Your task to perform on an android device: refresh tabs in the chrome app Image 0: 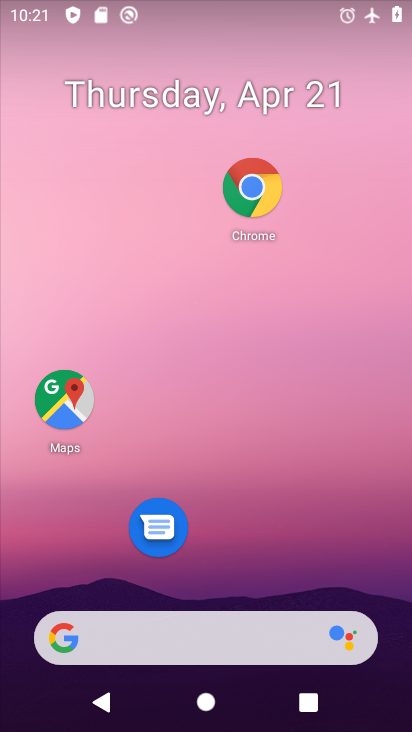
Step 0: click (263, 208)
Your task to perform on an android device: refresh tabs in the chrome app Image 1: 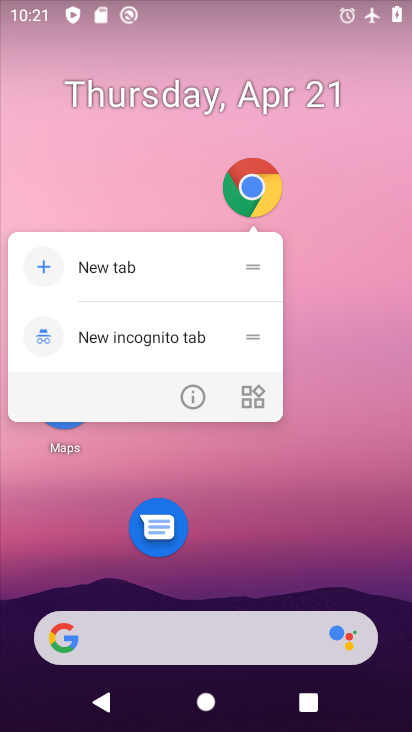
Step 1: click (263, 208)
Your task to perform on an android device: refresh tabs in the chrome app Image 2: 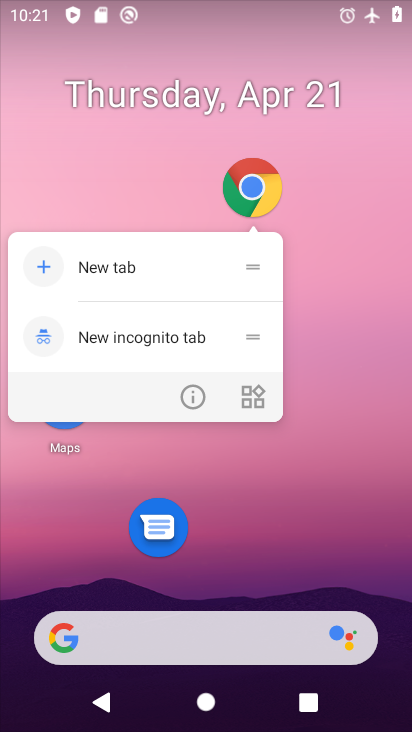
Step 2: click (263, 208)
Your task to perform on an android device: refresh tabs in the chrome app Image 3: 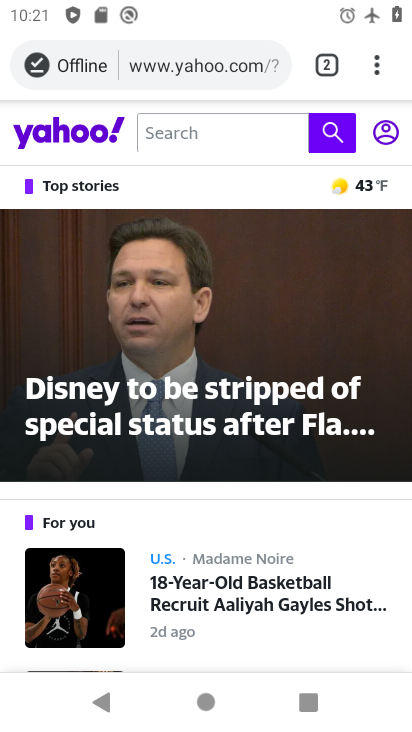
Step 3: click (384, 68)
Your task to perform on an android device: refresh tabs in the chrome app Image 4: 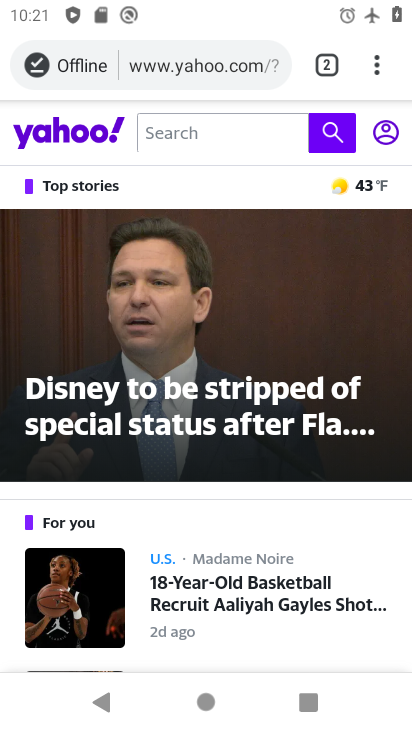
Step 4: task complete